Your task to perform on an android device: turn on data saver in the chrome app Image 0: 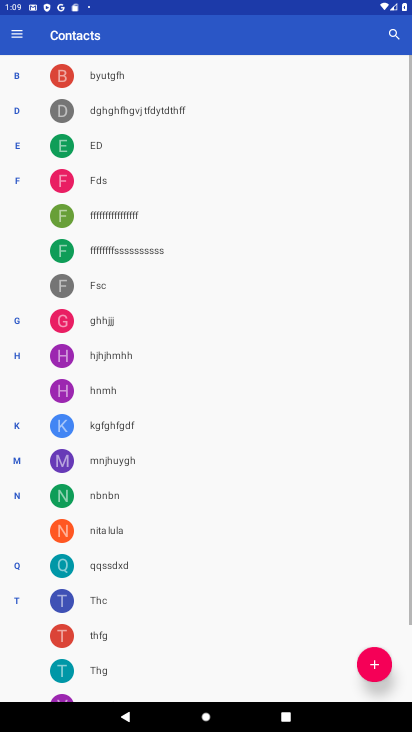
Step 0: press home button
Your task to perform on an android device: turn on data saver in the chrome app Image 1: 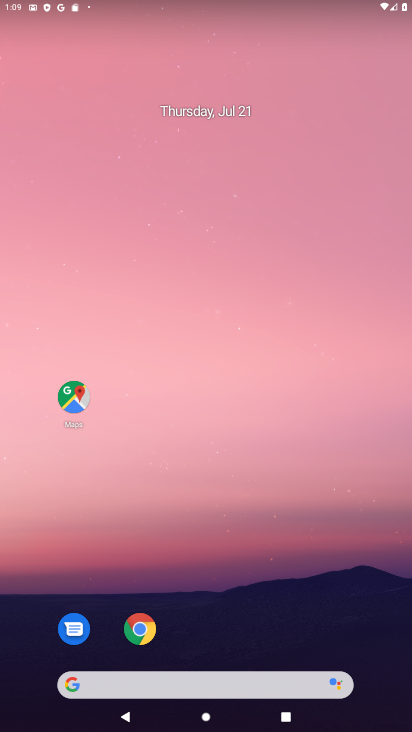
Step 1: drag from (167, 659) to (271, 163)
Your task to perform on an android device: turn on data saver in the chrome app Image 2: 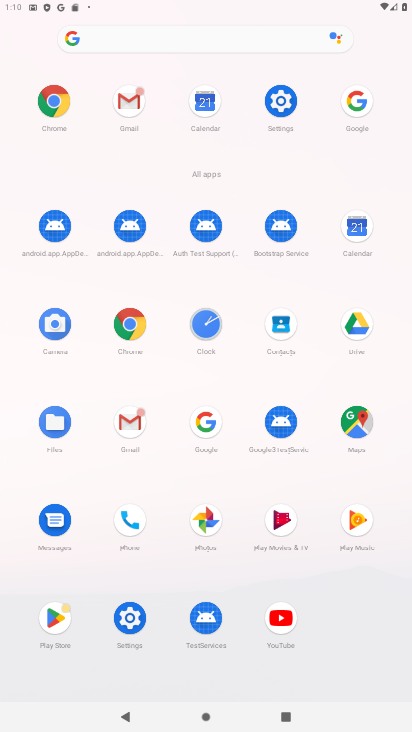
Step 2: click (126, 321)
Your task to perform on an android device: turn on data saver in the chrome app Image 3: 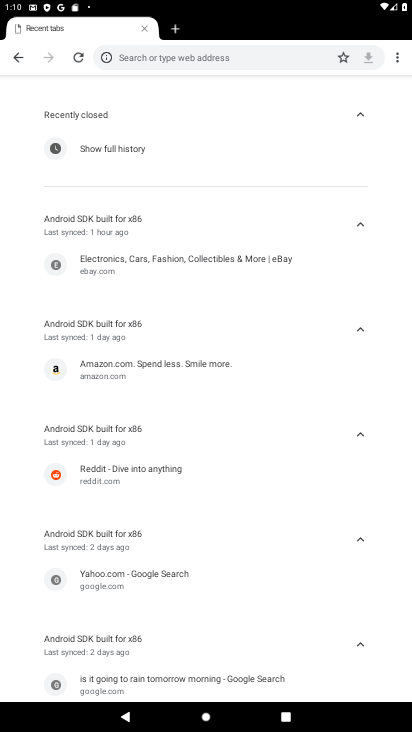
Step 3: click (392, 61)
Your task to perform on an android device: turn on data saver in the chrome app Image 4: 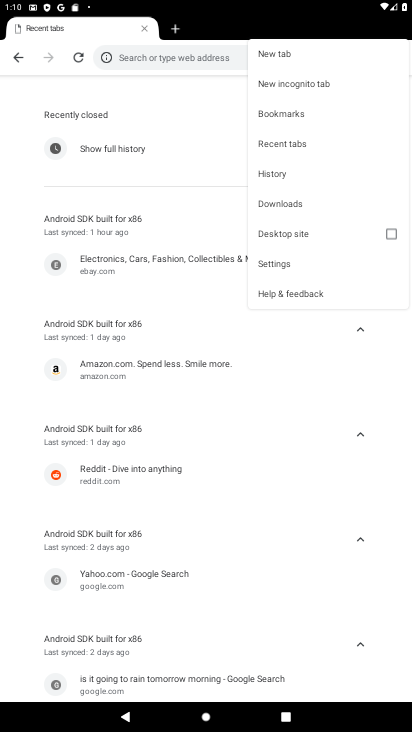
Step 4: click (292, 265)
Your task to perform on an android device: turn on data saver in the chrome app Image 5: 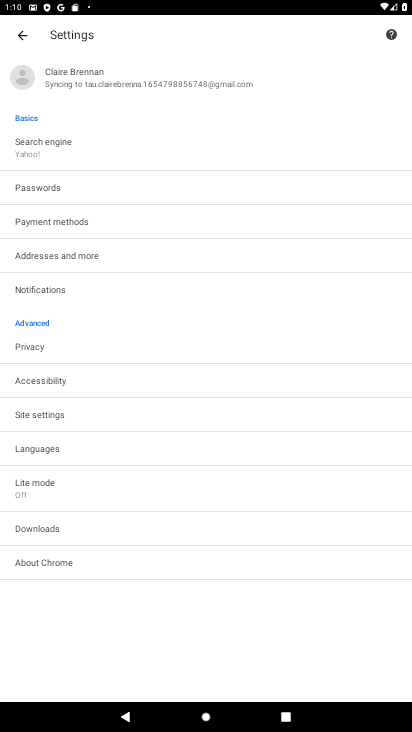
Step 5: click (47, 483)
Your task to perform on an android device: turn on data saver in the chrome app Image 6: 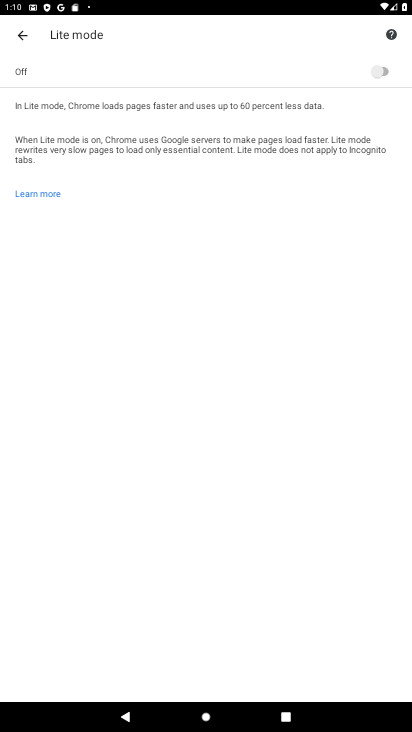
Step 6: click (381, 68)
Your task to perform on an android device: turn on data saver in the chrome app Image 7: 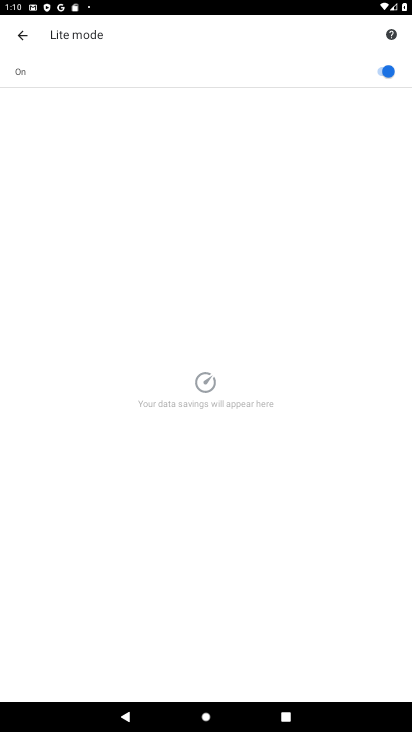
Step 7: task complete